Your task to perform on an android device: Open privacy settings Image 0: 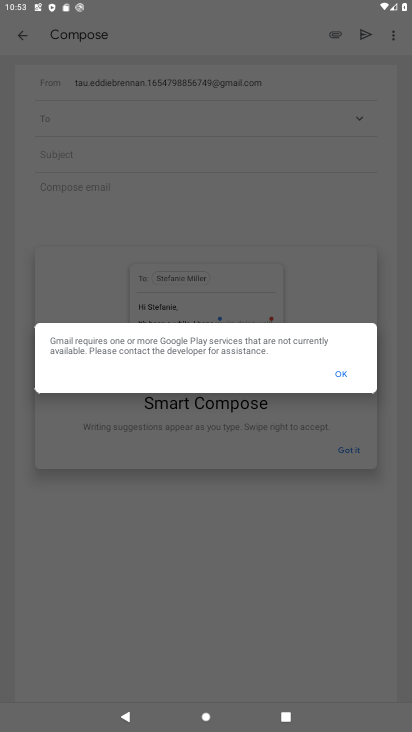
Step 0: click (339, 376)
Your task to perform on an android device: Open privacy settings Image 1: 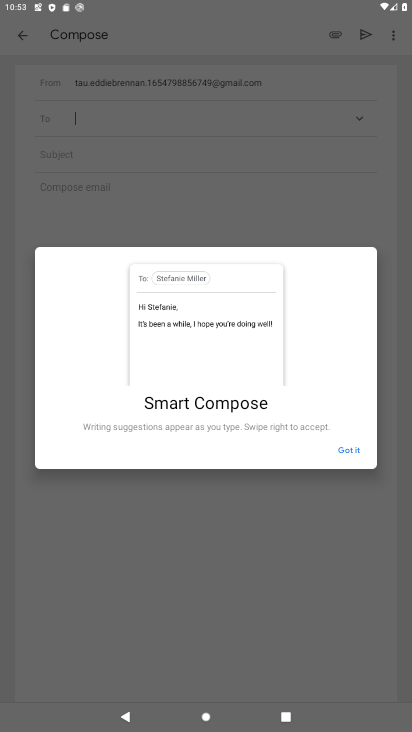
Step 1: click (340, 454)
Your task to perform on an android device: Open privacy settings Image 2: 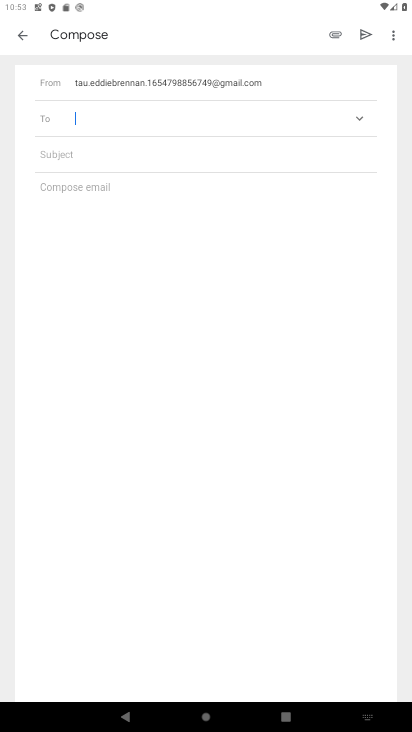
Step 2: press home button
Your task to perform on an android device: Open privacy settings Image 3: 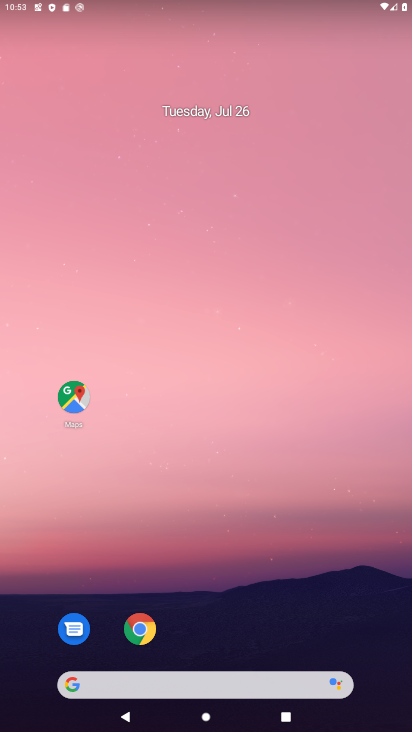
Step 3: drag from (255, 635) to (233, 24)
Your task to perform on an android device: Open privacy settings Image 4: 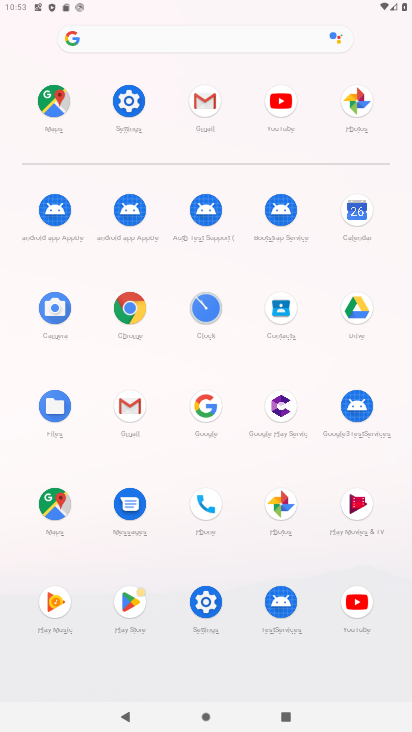
Step 4: click (138, 156)
Your task to perform on an android device: Open privacy settings Image 5: 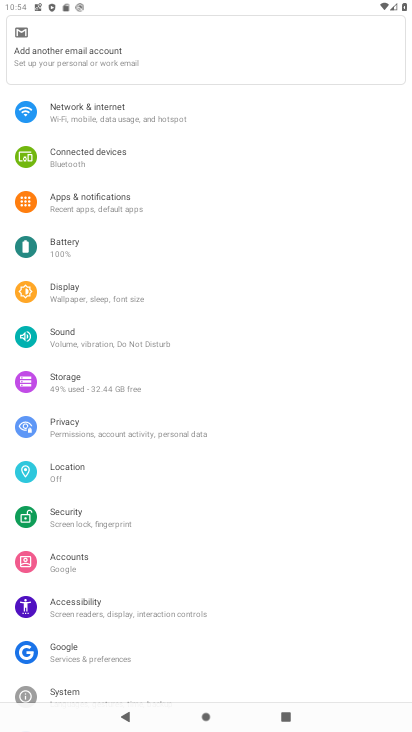
Step 5: click (105, 416)
Your task to perform on an android device: Open privacy settings Image 6: 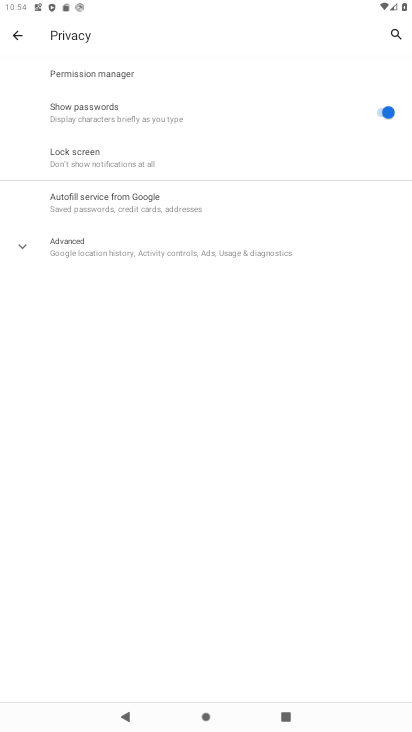
Step 6: task complete